Your task to perform on an android device: Go to accessibility settings Image 0: 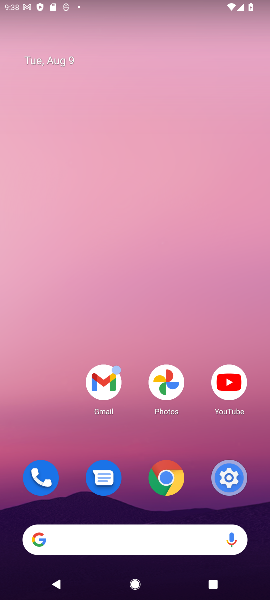
Step 0: click (232, 483)
Your task to perform on an android device: Go to accessibility settings Image 1: 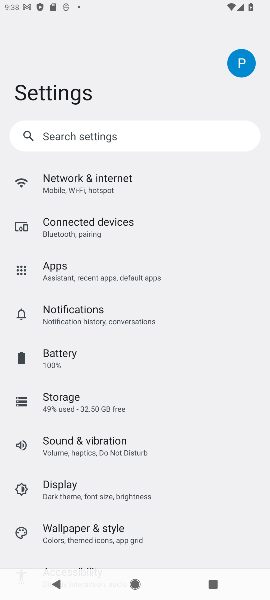
Step 1: drag from (164, 481) to (142, 358)
Your task to perform on an android device: Go to accessibility settings Image 2: 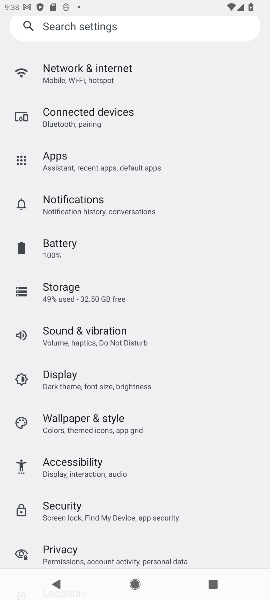
Step 2: click (126, 464)
Your task to perform on an android device: Go to accessibility settings Image 3: 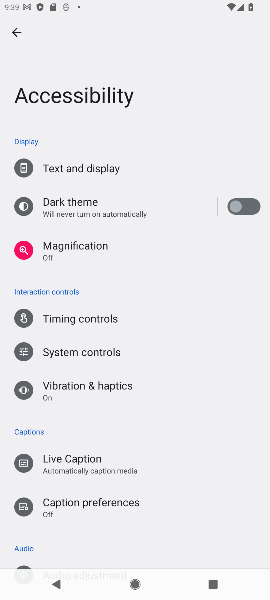
Step 3: task complete